Your task to perform on an android device: Open Android settings Image 0: 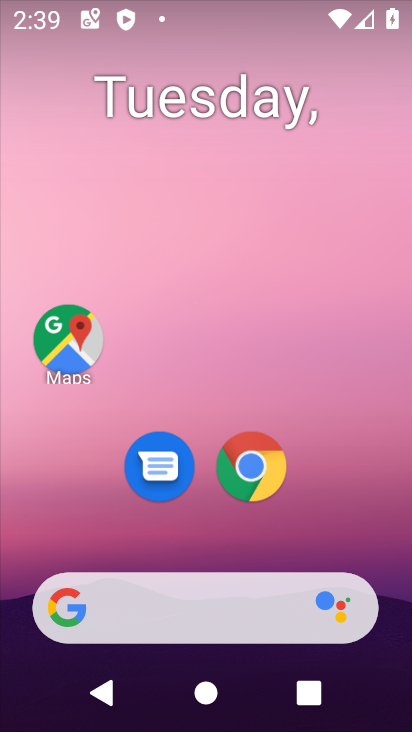
Step 0: task complete